Your task to perform on an android device: Show me some nice wallpapers for my phone Image 0: 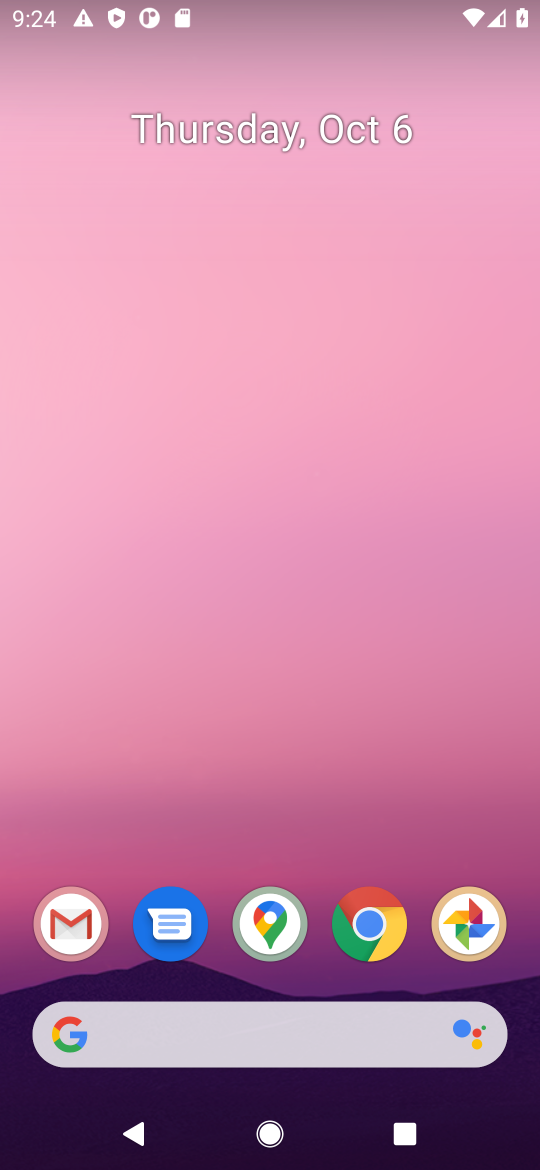
Step 0: click (362, 919)
Your task to perform on an android device: Show me some nice wallpapers for my phone Image 1: 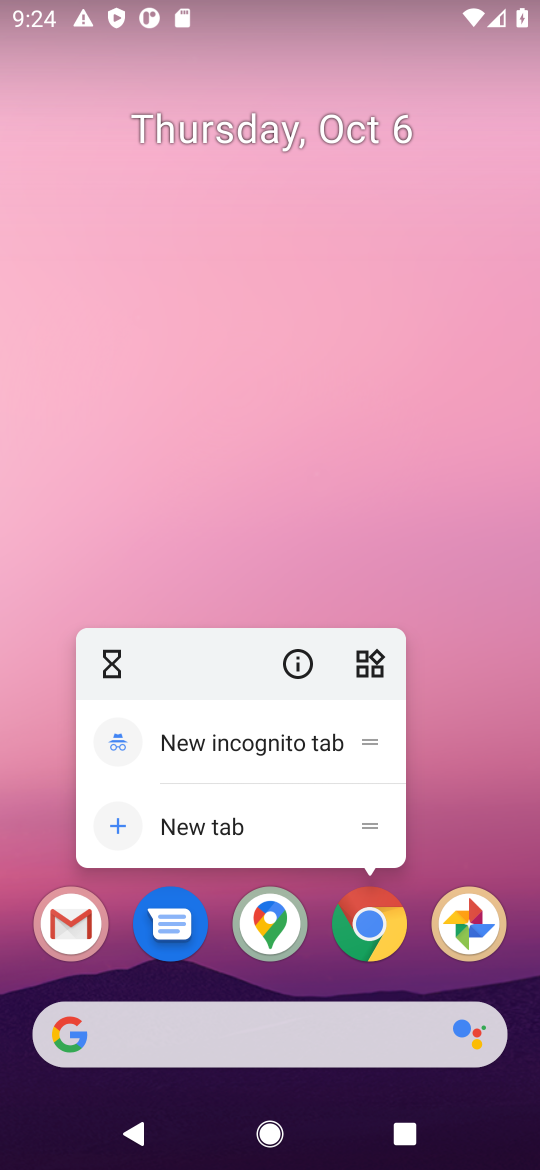
Step 1: click (374, 926)
Your task to perform on an android device: Show me some nice wallpapers for my phone Image 2: 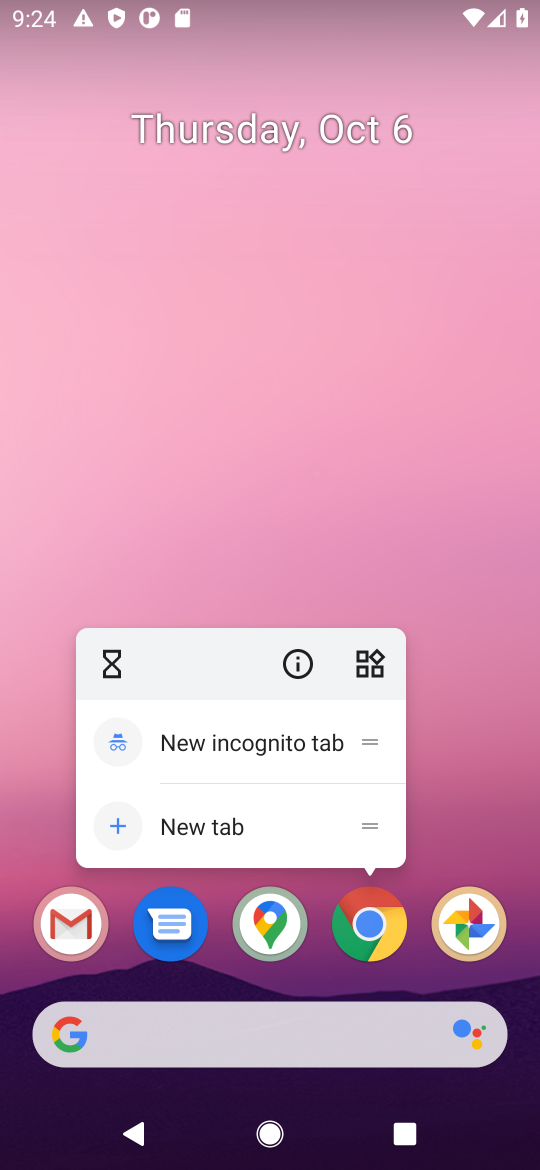
Step 2: click (368, 932)
Your task to perform on an android device: Show me some nice wallpapers for my phone Image 3: 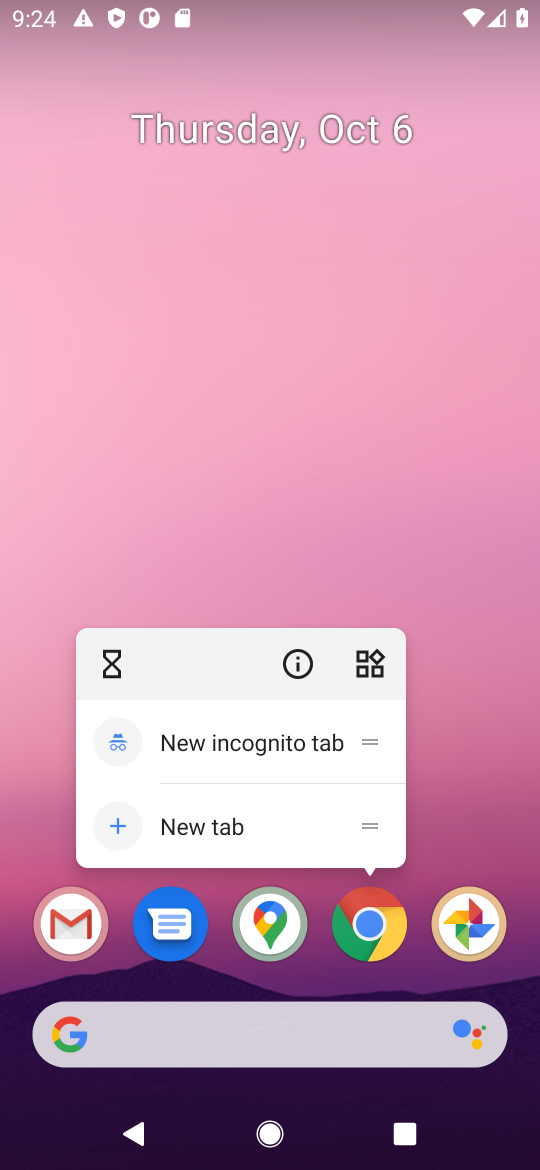
Step 3: click (368, 934)
Your task to perform on an android device: Show me some nice wallpapers for my phone Image 4: 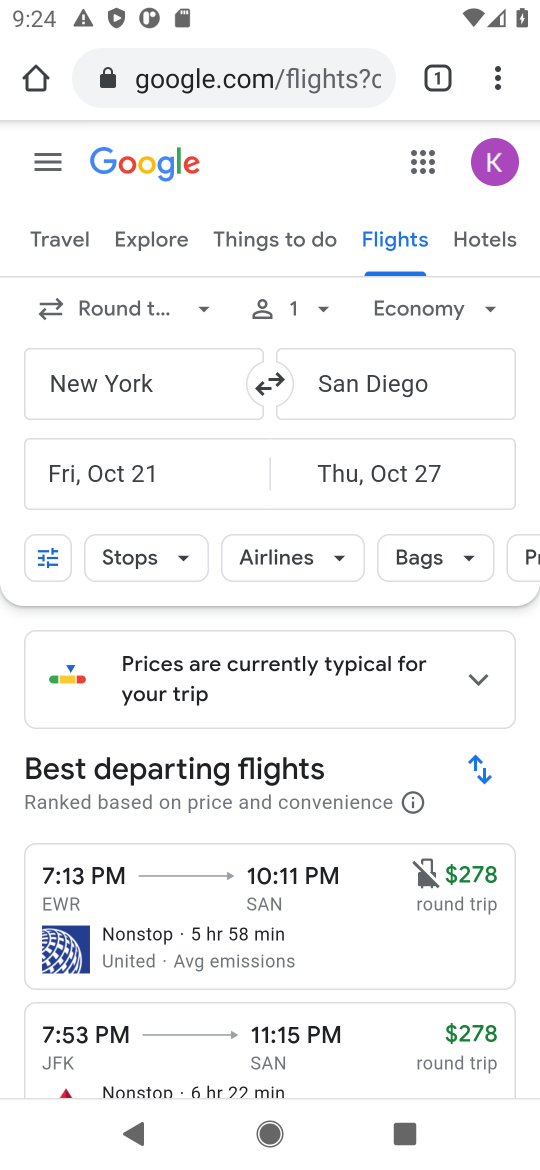
Step 4: click (324, 71)
Your task to perform on an android device: Show me some nice wallpapers for my phone Image 5: 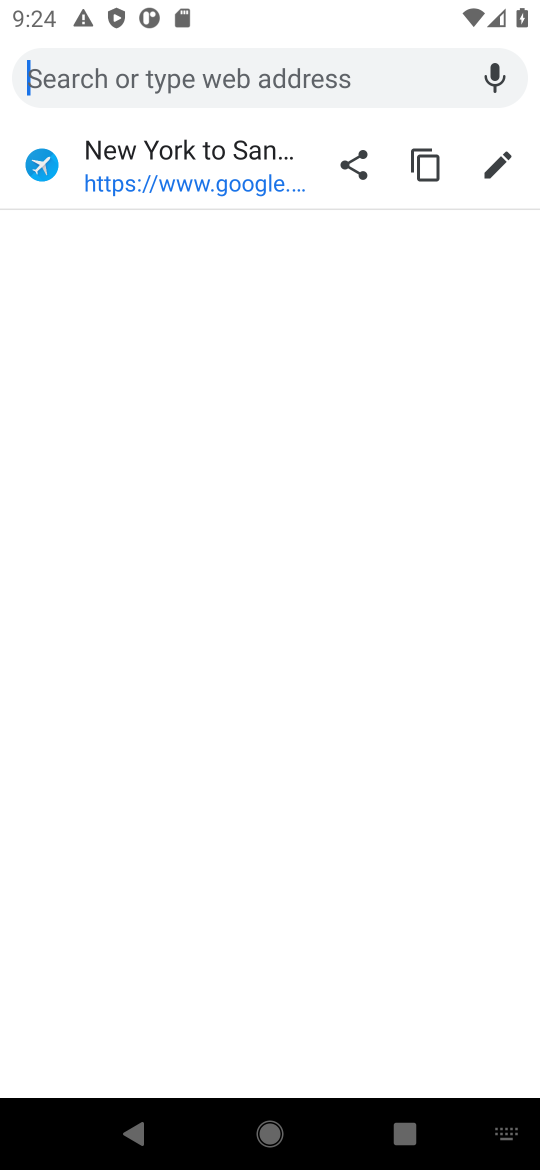
Step 5: type "nice wallpapers for my phone"
Your task to perform on an android device: Show me some nice wallpapers for my phone Image 6: 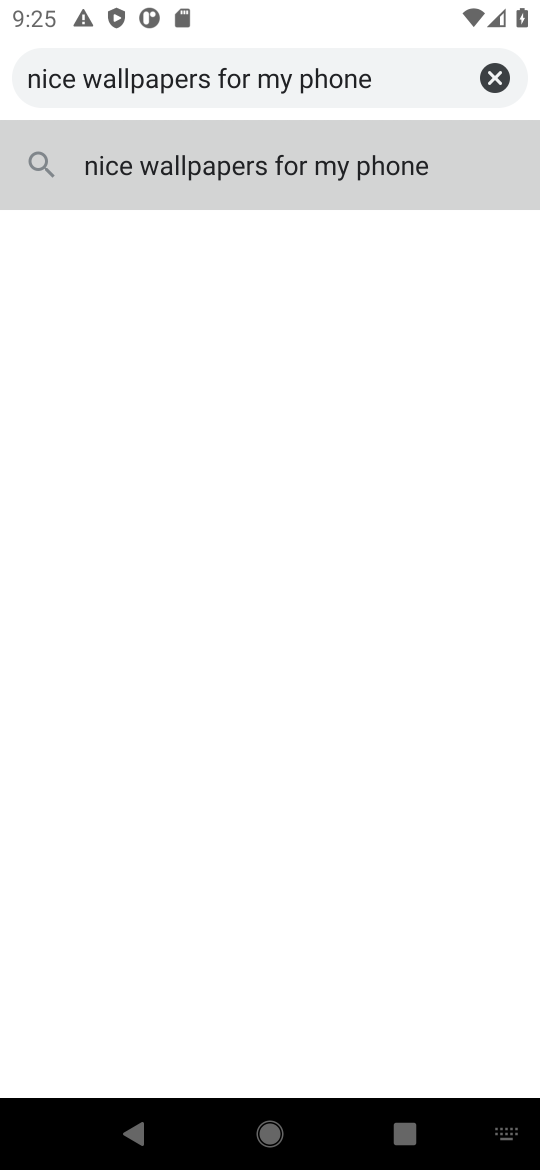
Step 6: click (176, 167)
Your task to perform on an android device: Show me some nice wallpapers for my phone Image 7: 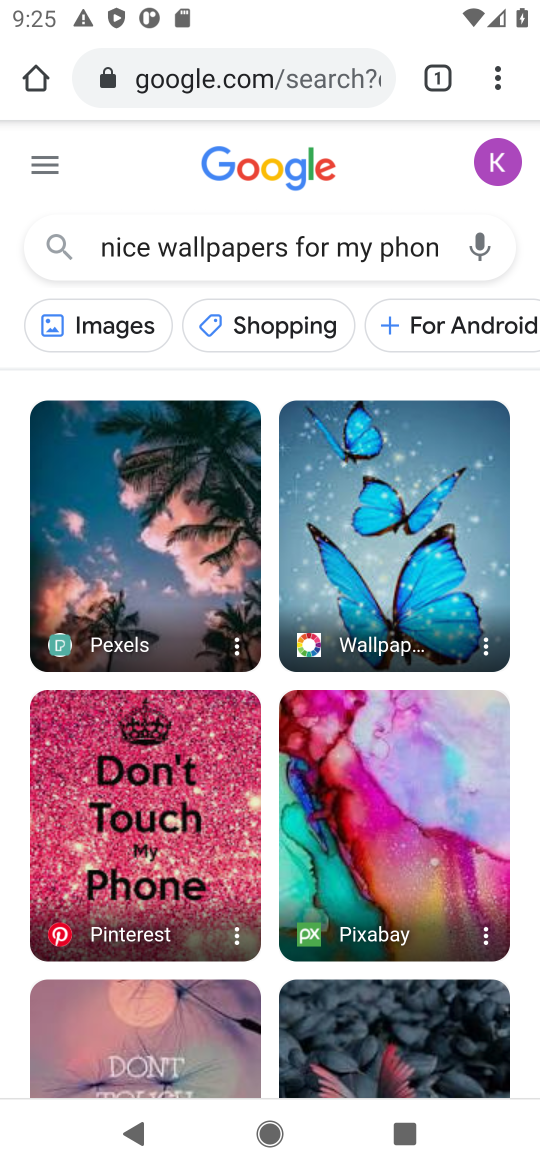
Step 7: task complete